Your task to perform on an android device: turn on data saver in the chrome app Image 0: 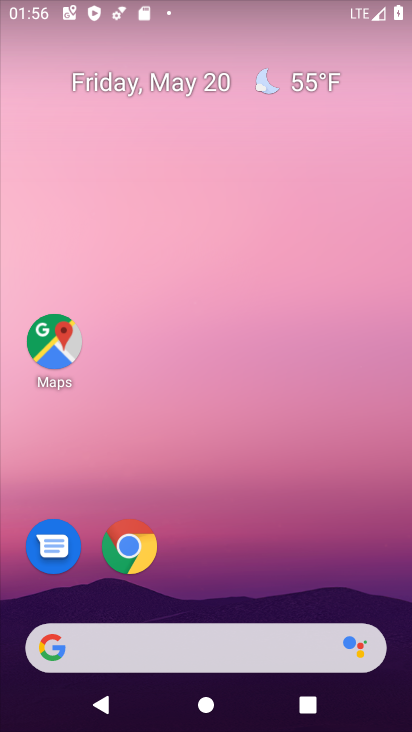
Step 0: drag from (187, 645) to (51, 0)
Your task to perform on an android device: turn on data saver in the chrome app Image 1: 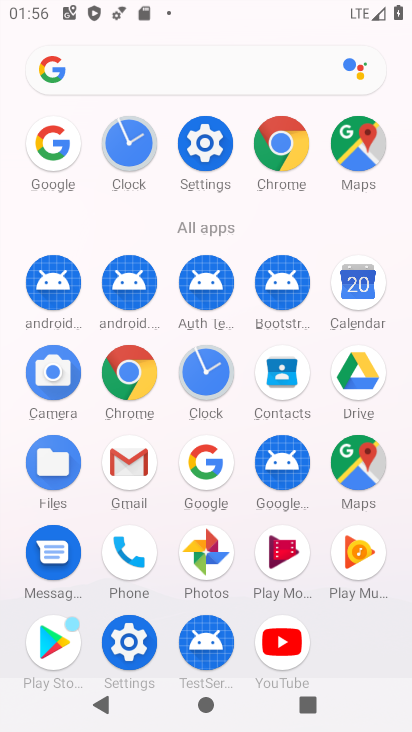
Step 1: click (120, 373)
Your task to perform on an android device: turn on data saver in the chrome app Image 2: 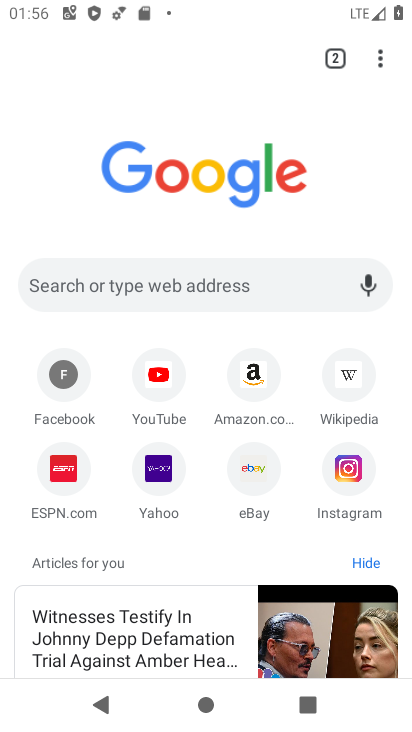
Step 2: drag from (388, 61) to (147, 492)
Your task to perform on an android device: turn on data saver in the chrome app Image 3: 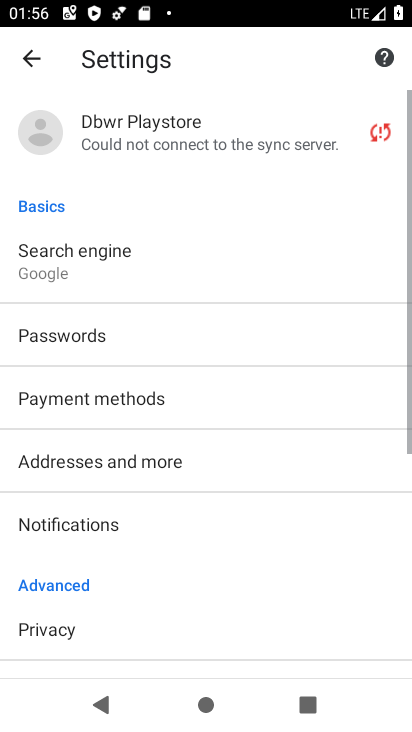
Step 3: drag from (31, 618) to (31, 157)
Your task to perform on an android device: turn on data saver in the chrome app Image 4: 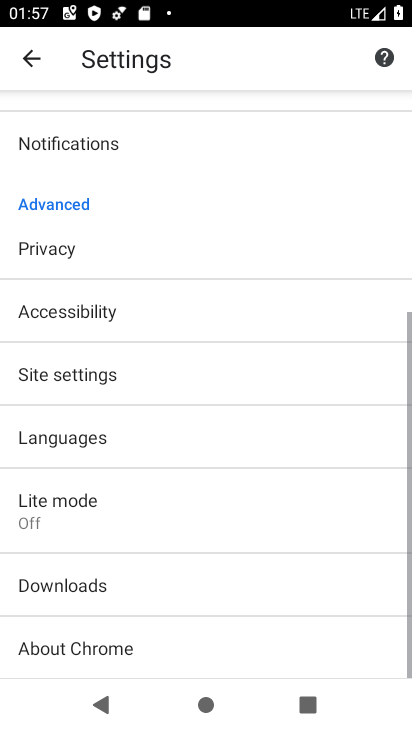
Step 4: click (60, 503)
Your task to perform on an android device: turn on data saver in the chrome app Image 5: 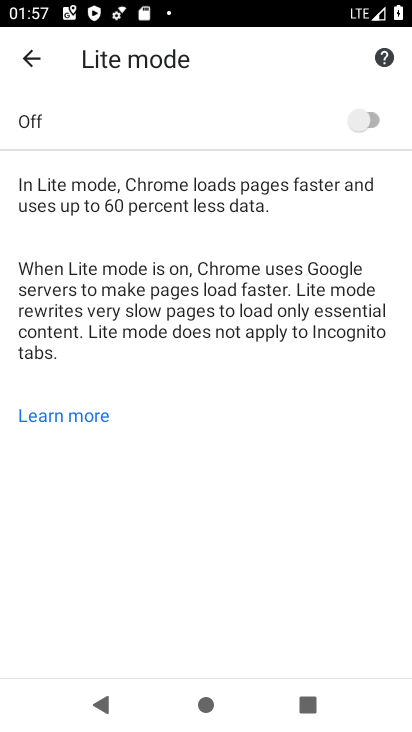
Step 5: click (367, 117)
Your task to perform on an android device: turn on data saver in the chrome app Image 6: 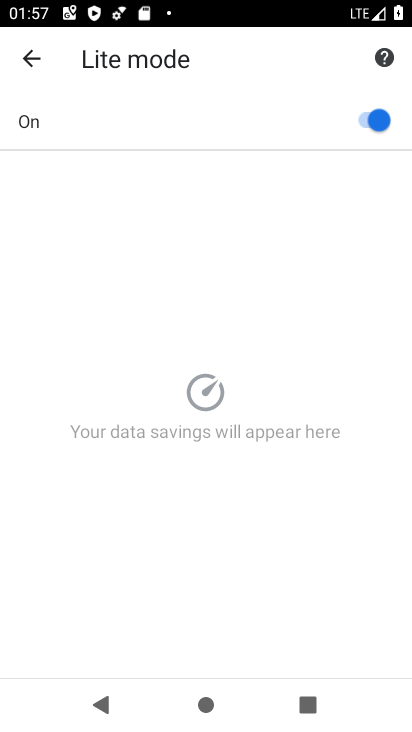
Step 6: task complete